Your task to perform on an android device: What's a good restaurant in Portland? Image 0: 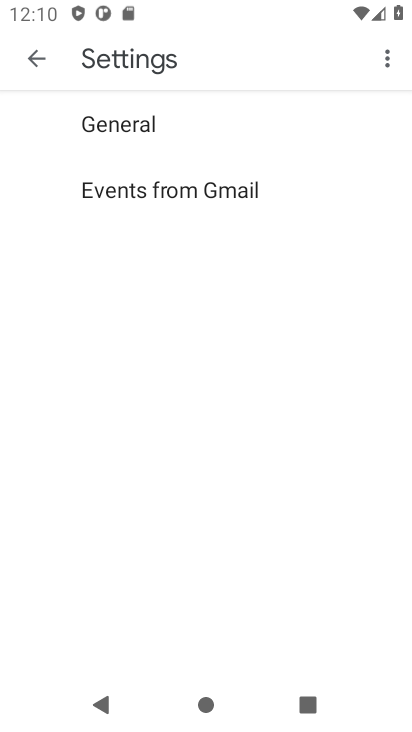
Step 0: press home button
Your task to perform on an android device: What's a good restaurant in Portland? Image 1: 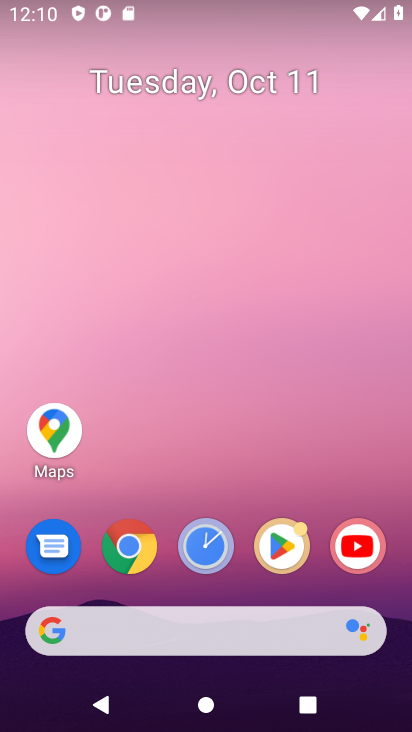
Step 1: click (135, 544)
Your task to perform on an android device: What's a good restaurant in Portland? Image 2: 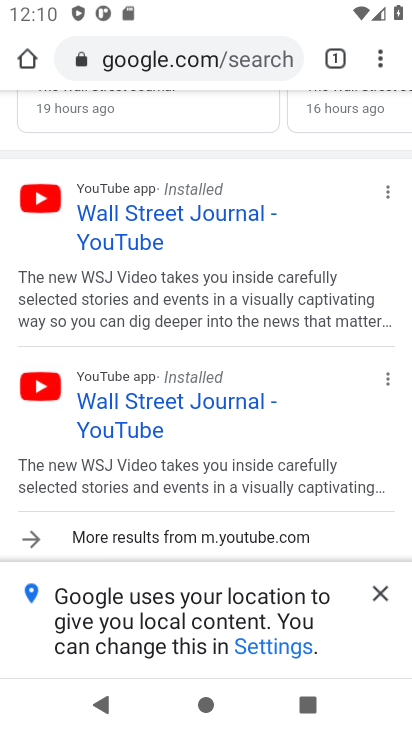
Step 2: click (171, 64)
Your task to perform on an android device: What's a good restaurant in Portland? Image 3: 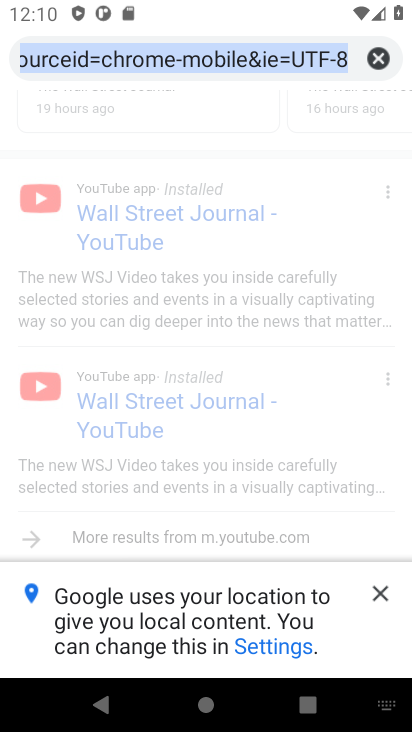
Step 3: type "good restaurant in Portland"
Your task to perform on an android device: What's a good restaurant in Portland? Image 4: 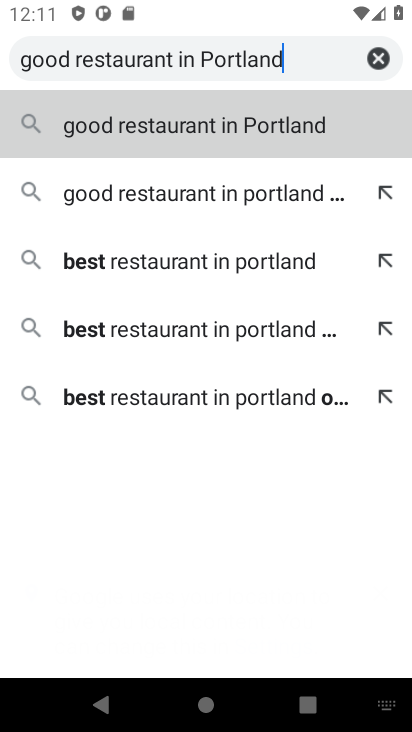
Step 4: press enter
Your task to perform on an android device: What's a good restaurant in Portland? Image 5: 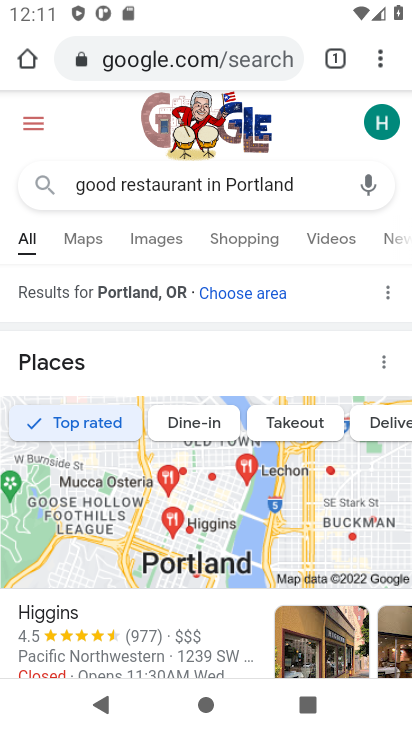
Step 5: task complete